Your task to perform on an android device: Open Wikipedia Image 0: 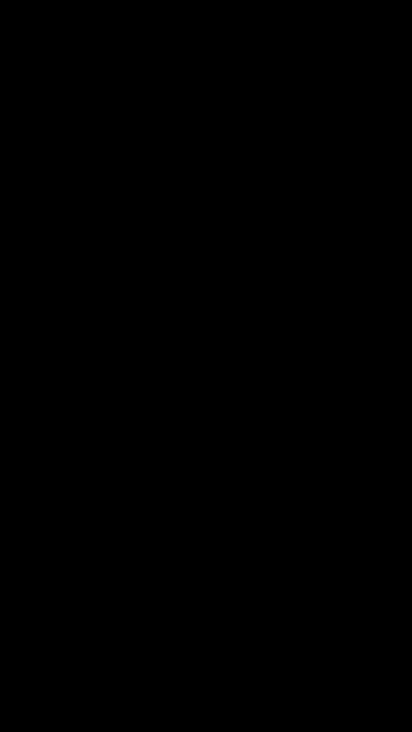
Step 0: press home button
Your task to perform on an android device: Open Wikipedia Image 1: 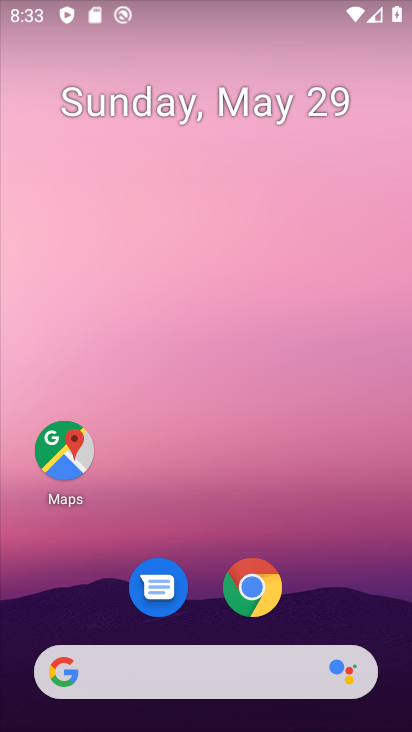
Step 1: click (260, 580)
Your task to perform on an android device: Open Wikipedia Image 2: 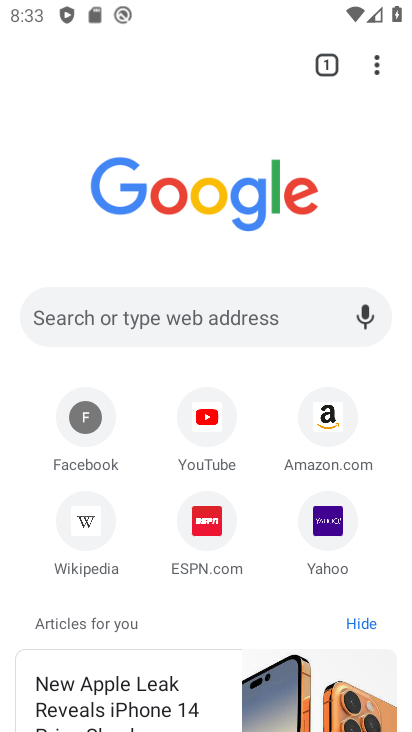
Step 2: click (78, 514)
Your task to perform on an android device: Open Wikipedia Image 3: 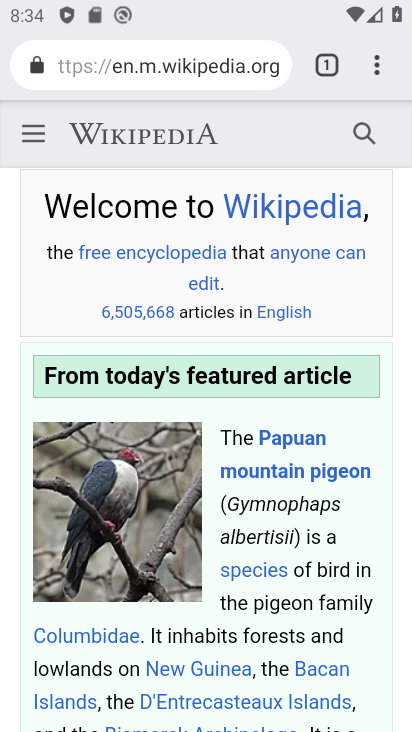
Step 3: task complete